Your task to perform on an android device: What's on my calendar tomorrow? Image 0: 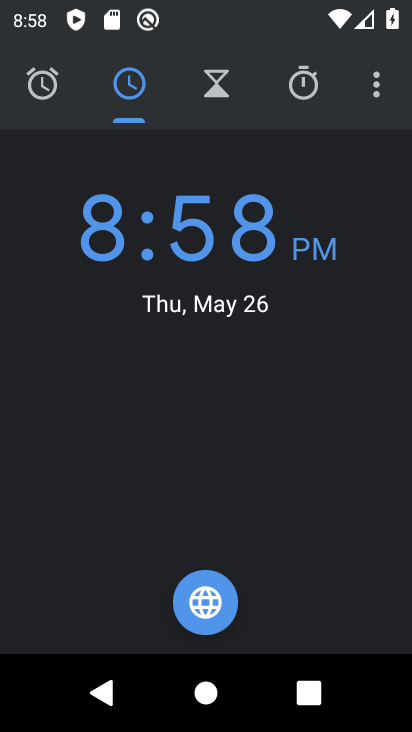
Step 0: press home button
Your task to perform on an android device: What's on my calendar tomorrow? Image 1: 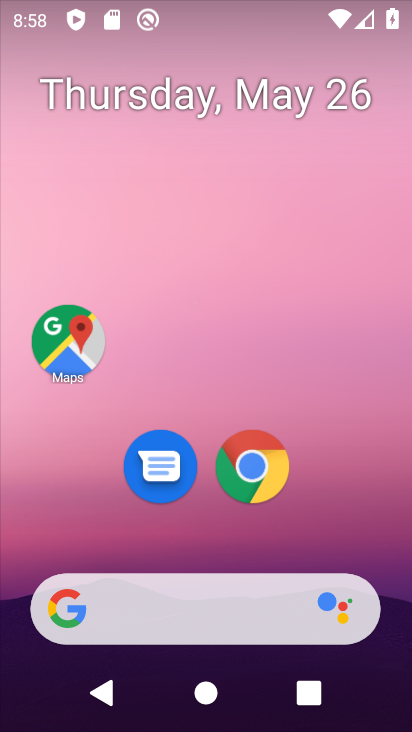
Step 1: drag from (344, 487) to (241, 72)
Your task to perform on an android device: What's on my calendar tomorrow? Image 2: 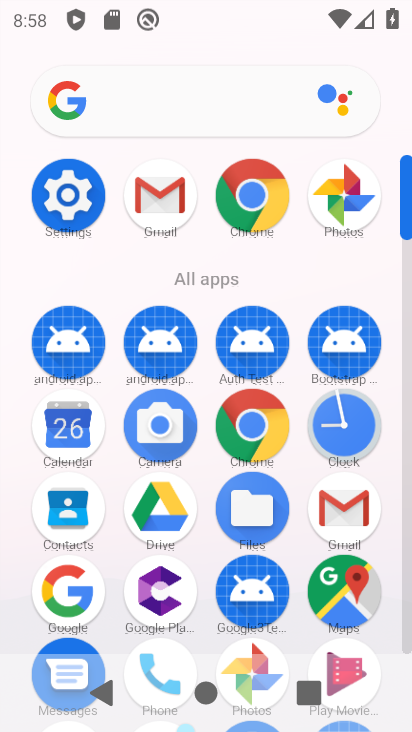
Step 2: click (66, 425)
Your task to perform on an android device: What's on my calendar tomorrow? Image 3: 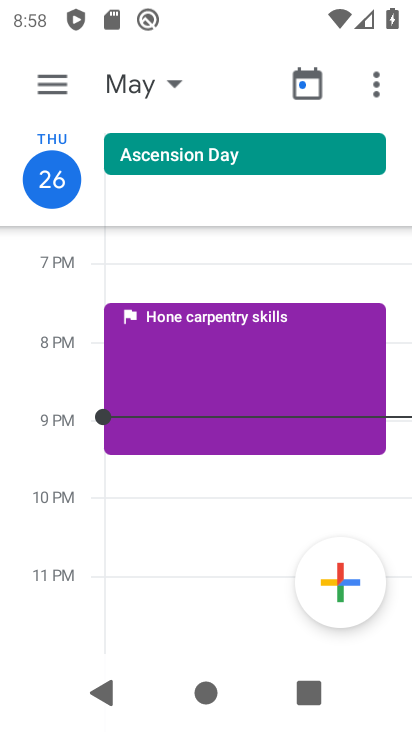
Step 3: click (174, 81)
Your task to perform on an android device: What's on my calendar tomorrow? Image 4: 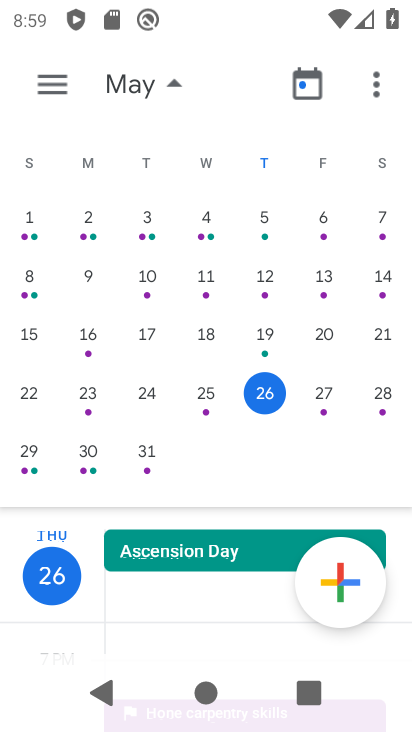
Step 4: click (329, 391)
Your task to perform on an android device: What's on my calendar tomorrow? Image 5: 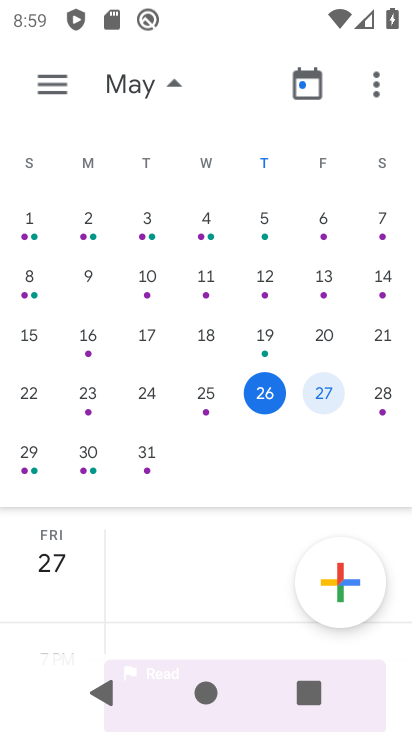
Step 5: task complete